Your task to perform on an android device: empty trash in google photos Image 0: 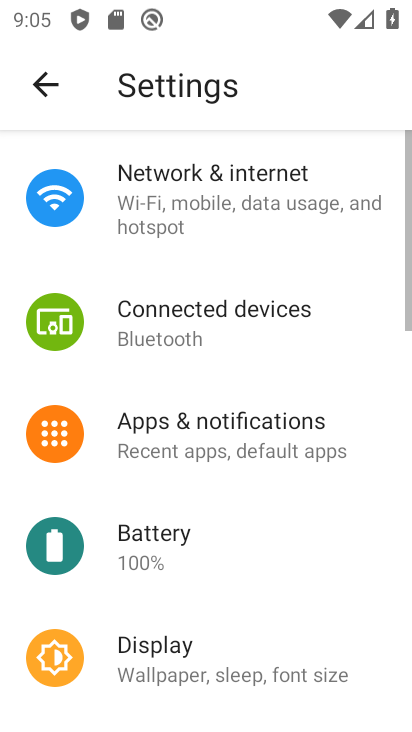
Step 0: press home button
Your task to perform on an android device: empty trash in google photos Image 1: 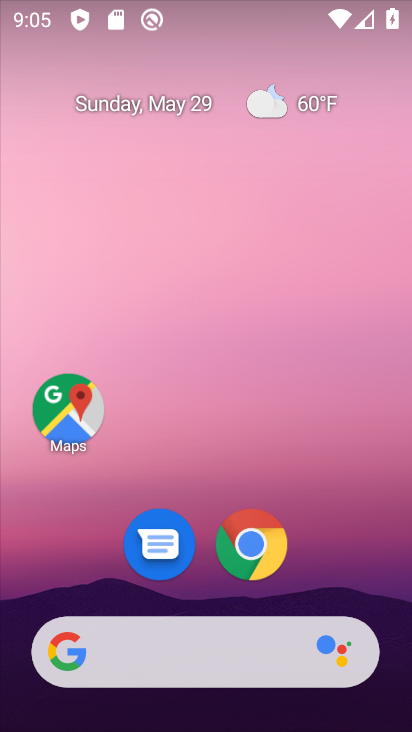
Step 1: drag from (333, 549) to (362, 174)
Your task to perform on an android device: empty trash in google photos Image 2: 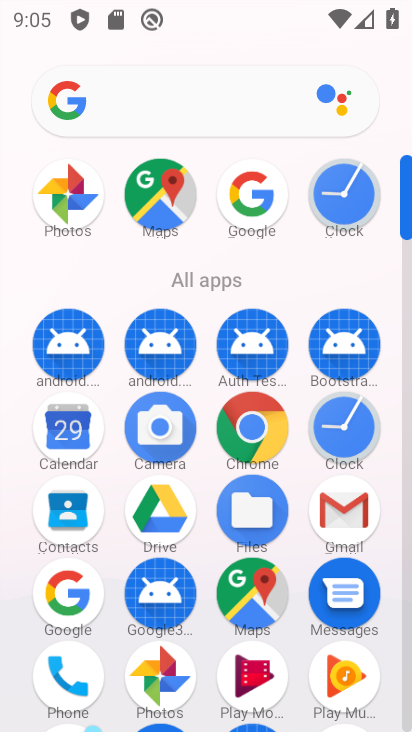
Step 2: click (156, 678)
Your task to perform on an android device: empty trash in google photos Image 3: 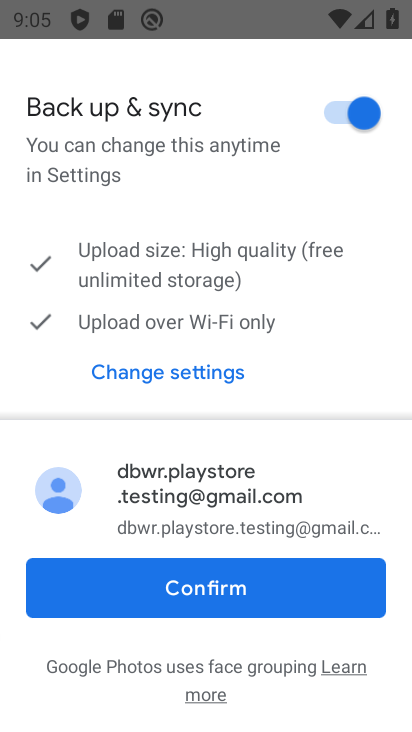
Step 3: click (190, 600)
Your task to perform on an android device: empty trash in google photos Image 4: 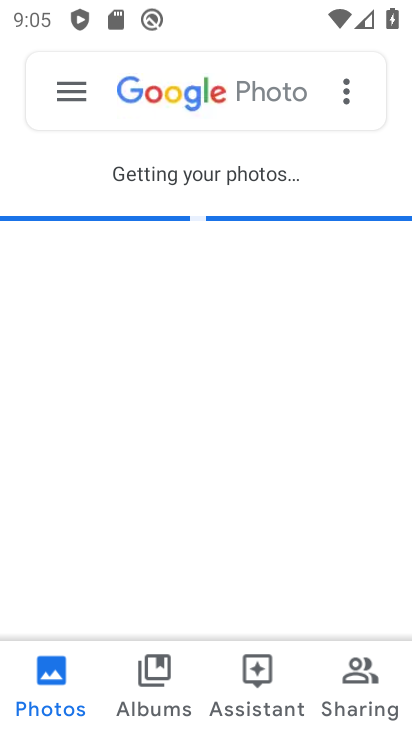
Step 4: click (73, 91)
Your task to perform on an android device: empty trash in google photos Image 5: 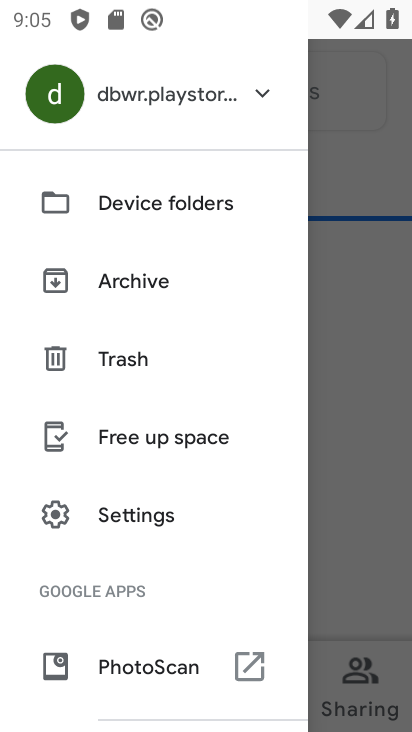
Step 5: click (122, 355)
Your task to perform on an android device: empty trash in google photos Image 6: 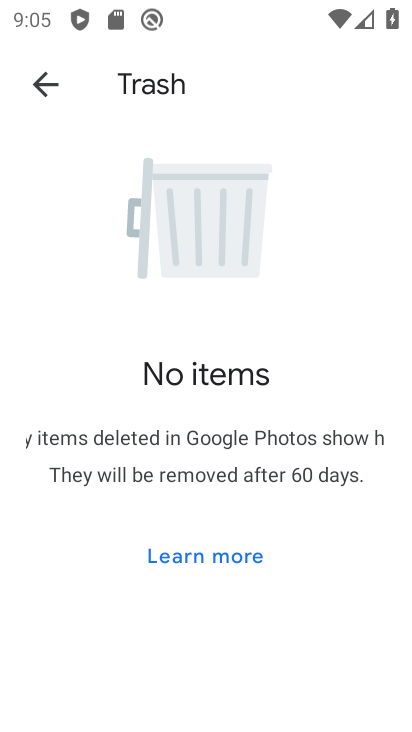
Step 6: task complete